Your task to perform on an android device: Go to Maps Image 0: 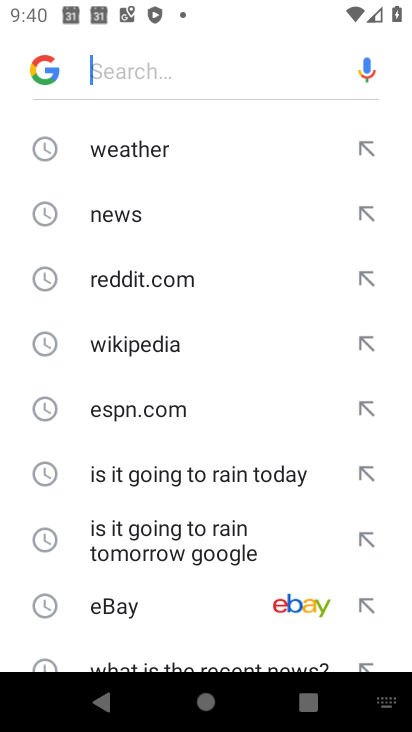
Step 0: press home button
Your task to perform on an android device: Go to Maps Image 1: 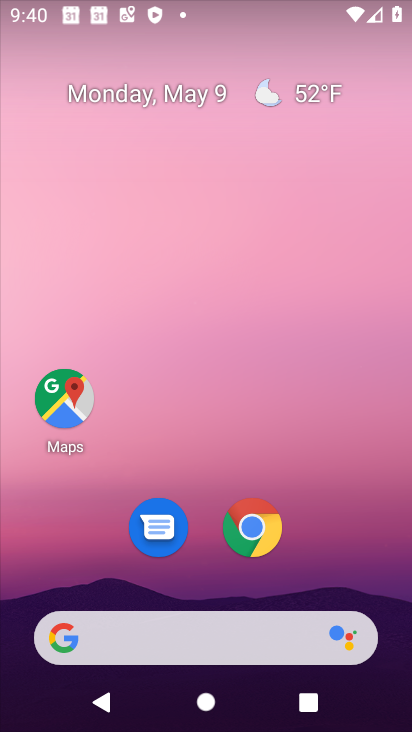
Step 1: drag from (212, 578) to (167, 65)
Your task to perform on an android device: Go to Maps Image 2: 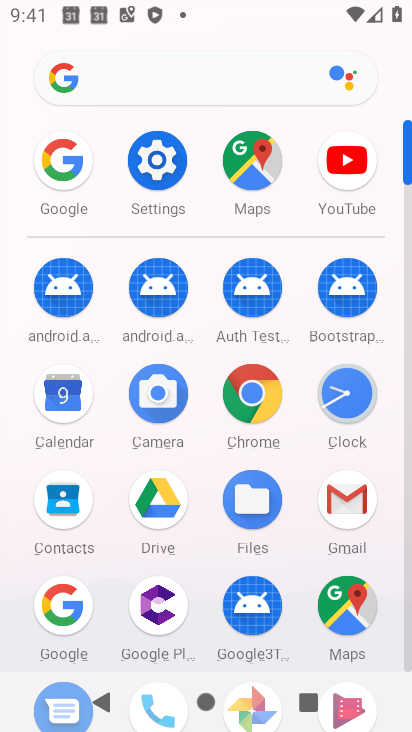
Step 2: click (253, 165)
Your task to perform on an android device: Go to Maps Image 3: 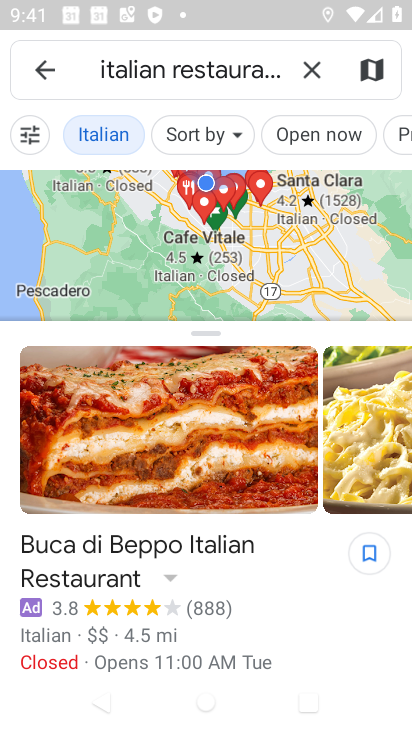
Step 3: task complete